Your task to perform on an android device: change the clock style Image 0: 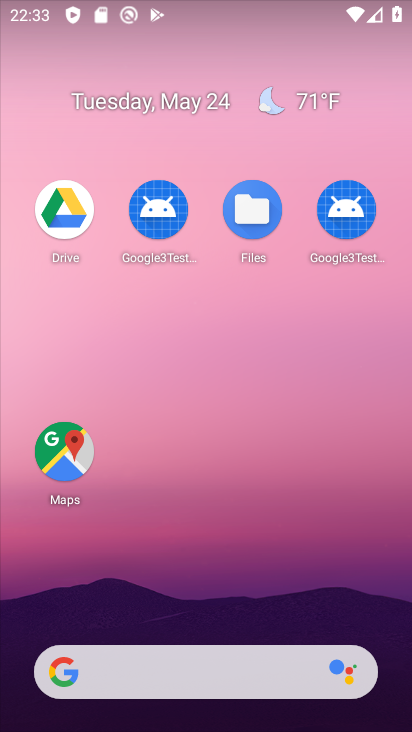
Step 0: drag from (216, 609) to (157, 48)
Your task to perform on an android device: change the clock style Image 1: 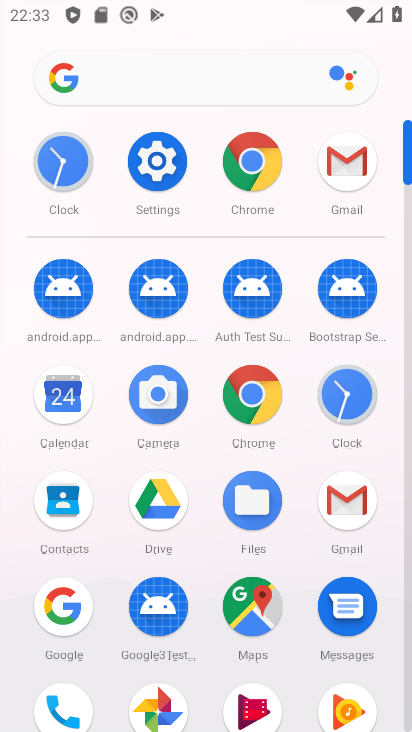
Step 1: click (57, 167)
Your task to perform on an android device: change the clock style Image 2: 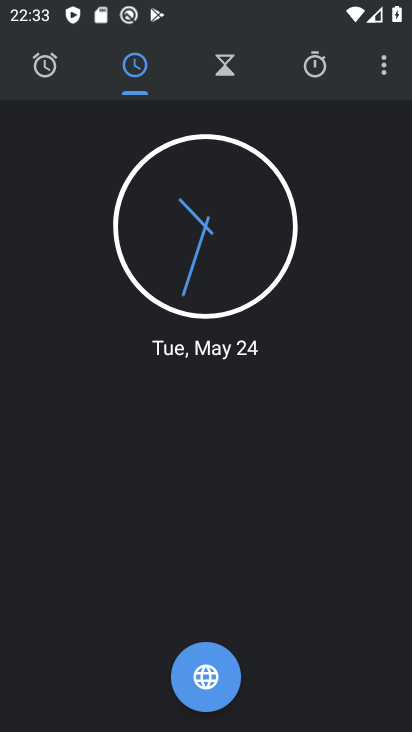
Step 2: click (373, 70)
Your task to perform on an android device: change the clock style Image 3: 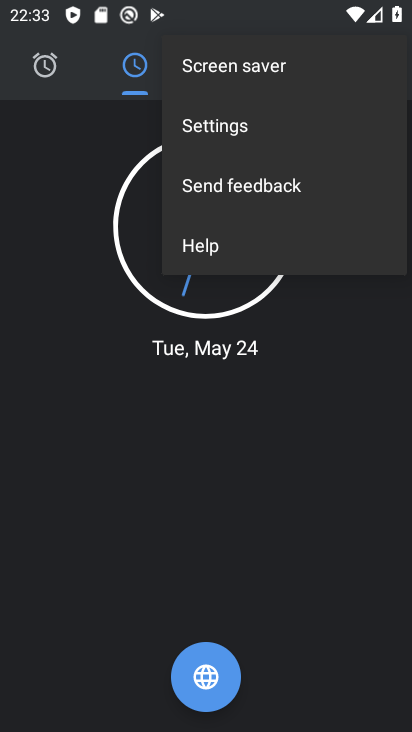
Step 3: click (220, 126)
Your task to perform on an android device: change the clock style Image 4: 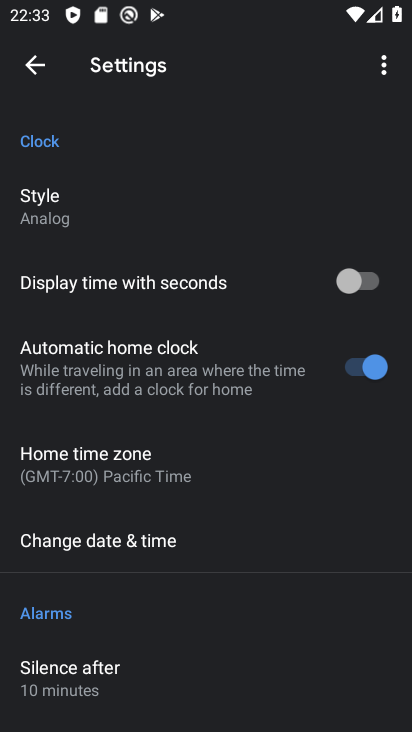
Step 4: click (77, 211)
Your task to perform on an android device: change the clock style Image 5: 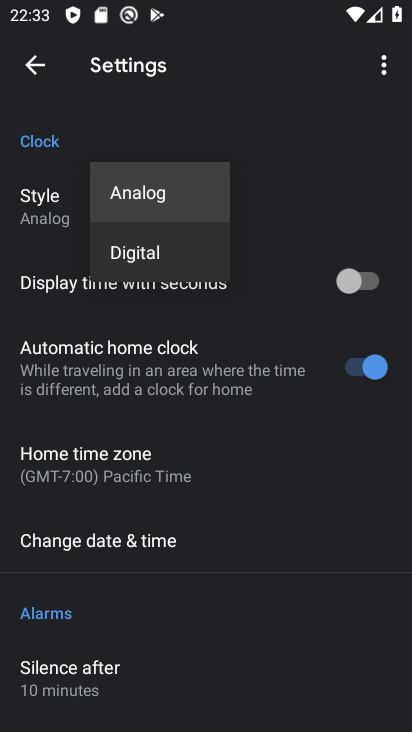
Step 5: click (130, 243)
Your task to perform on an android device: change the clock style Image 6: 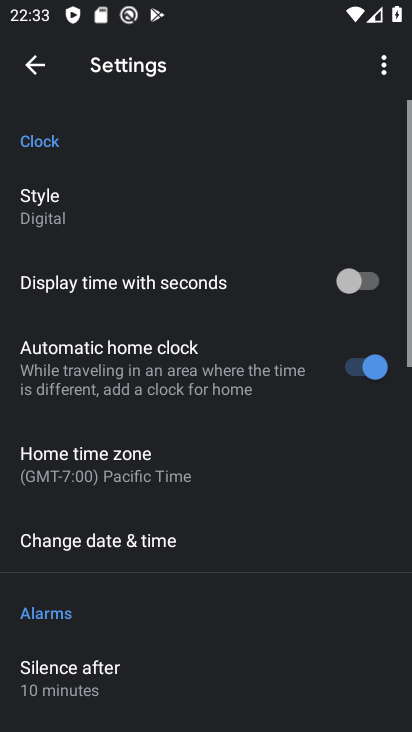
Step 6: task complete